Your task to perform on an android device: Open settings on Google Maps Image 0: 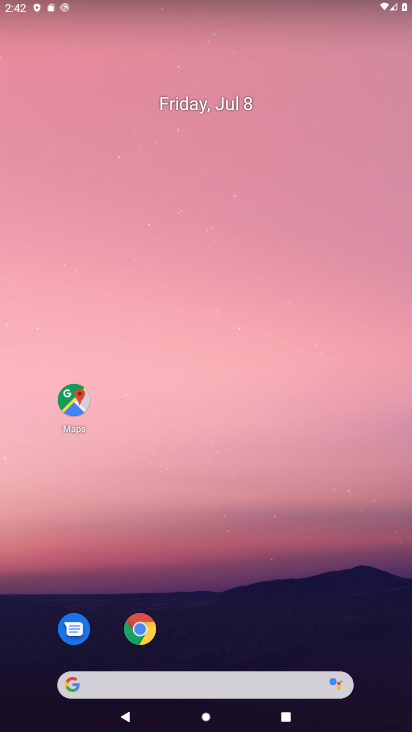
Step 0: click (63, 401)
Your task to perform on an android device: Open settings on Google Maps Image 1: 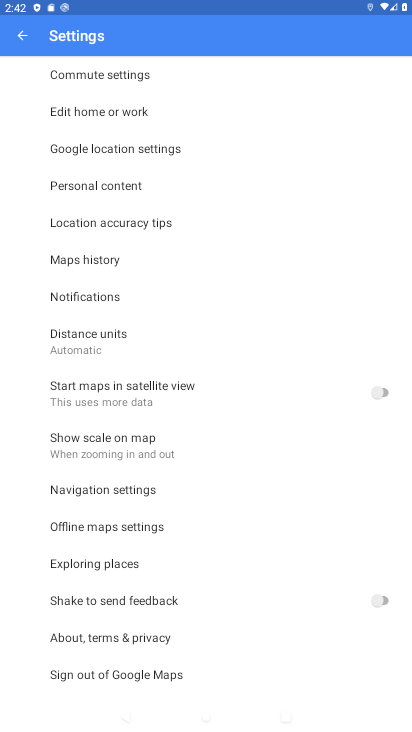
Step 1: click (22, 38)
Your task to perform on an android device: Open settings on Google Maps Image 2: 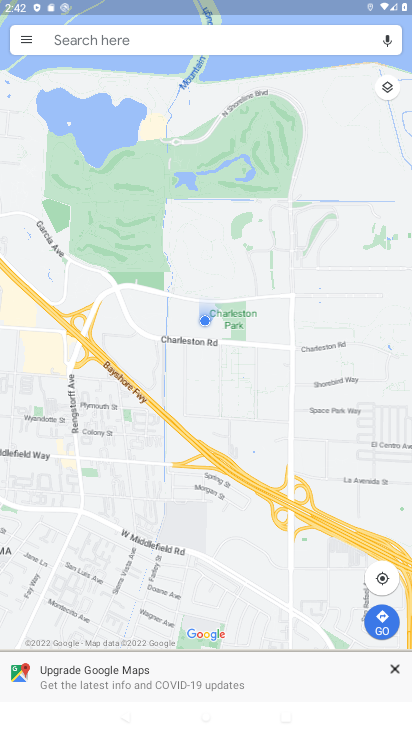
Step 2: click (27, 31)
Your task to perform on an android device: Open settings on Google Maps Image 3: 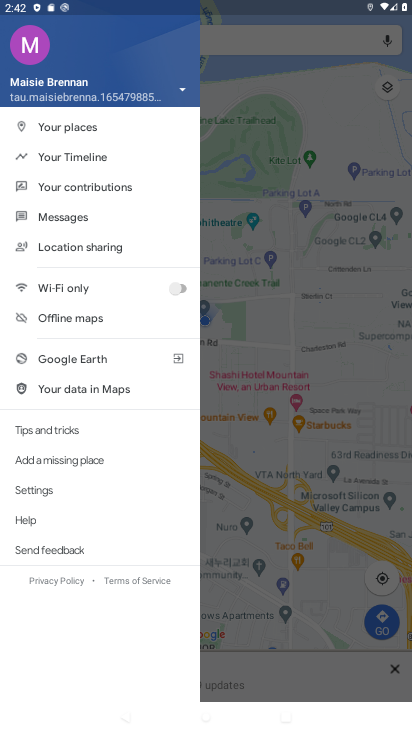
Step 3: click (56, 492)
Your task to perform on an android device: Open settings on Google Maps Image 4: 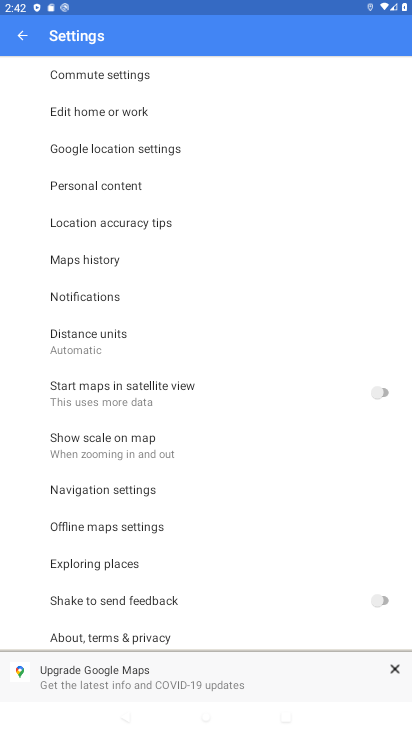
Step 4: task complete